Your task to perform on an android device: Open calendar and show me the fourth week of next month Image 0: 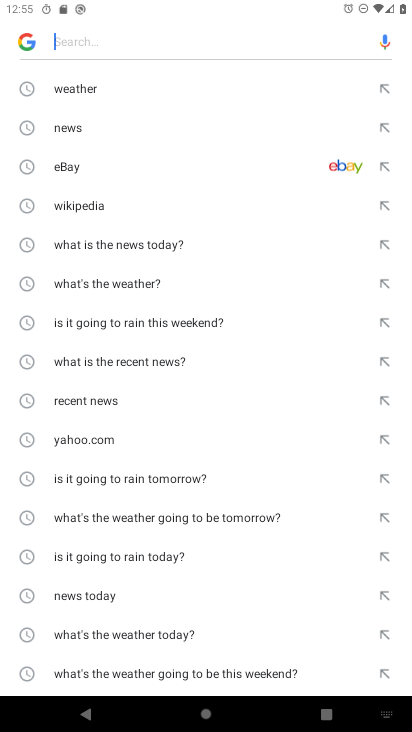
Step 0: press home button
Your task to perform on an android device: Open calendar and show me the fourth week of next month Image 1: 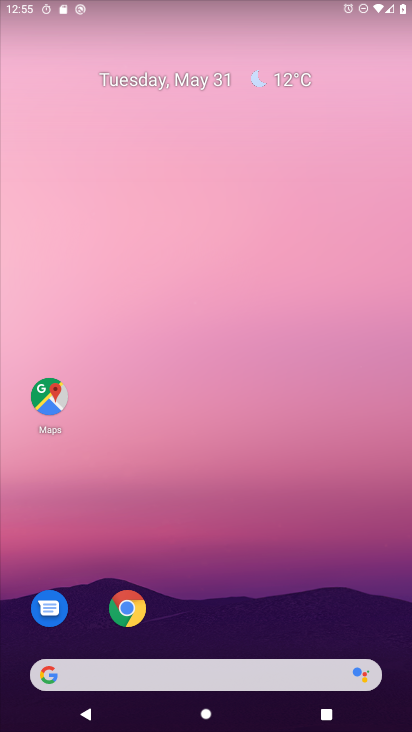
Step 1: drag from (300, 644) to (262, 9)
Your task to perform on an android device: Open calendar and show me the fourth week of next month Image 2: 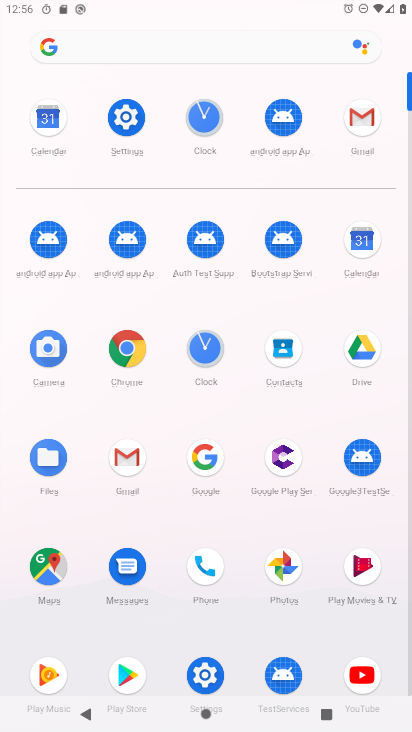
Step 2: click (44, 122)
Your task to perform on an android device: Open calendar and show me the fourth week of next month Image 3: 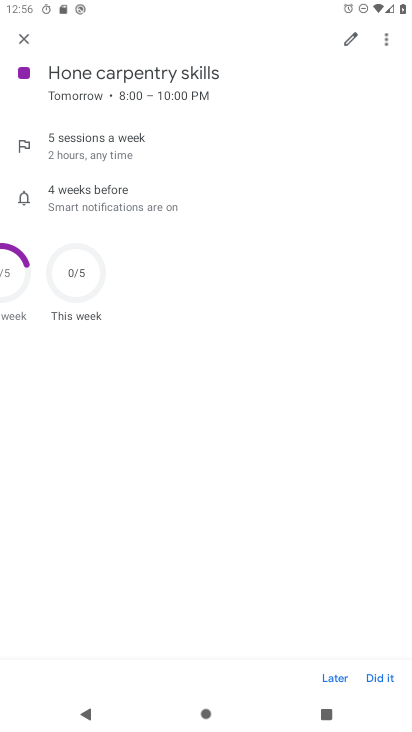
Step 3: click (23, 38)
Your task to perform on an android device: Open calendar and show me the fourth week of next month Image 4: 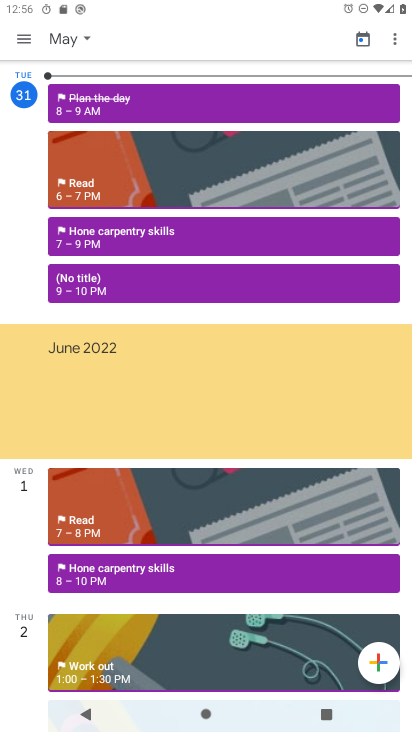
Step 4: click (85, 40)
Your task to perform on an android device: Open calendar and show me the fourth week of next month Image 5: 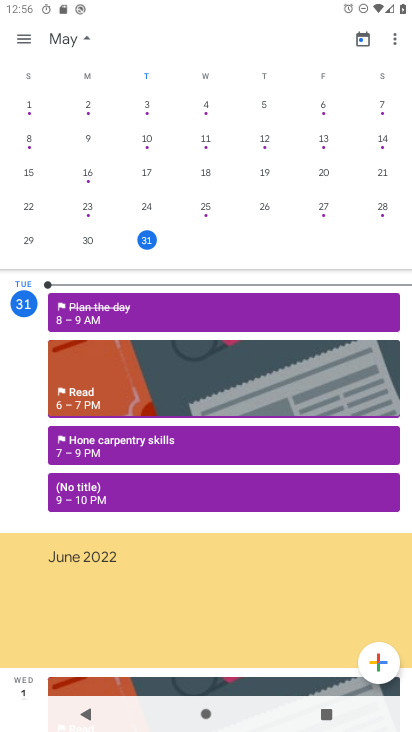
Step 5: drag from (292, 198) to (0, 80)
Your task to perform on an android device: Open calendar and show me the fourth week of next month Image 6: 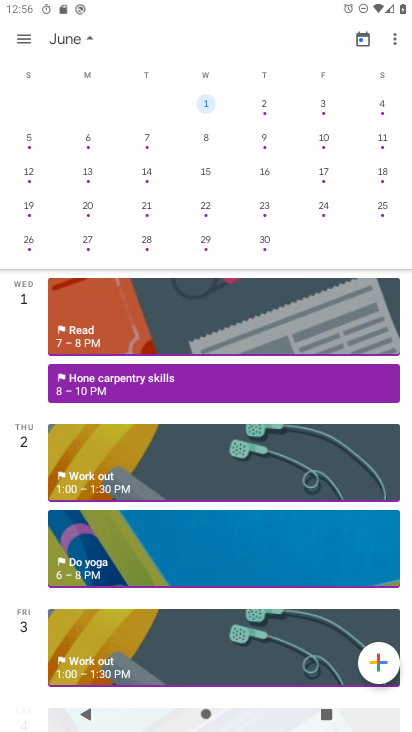
Step 6: click (26, 42)
Your task to perform on an android device: Open calendar and show me the fourth week of next month Image 7: 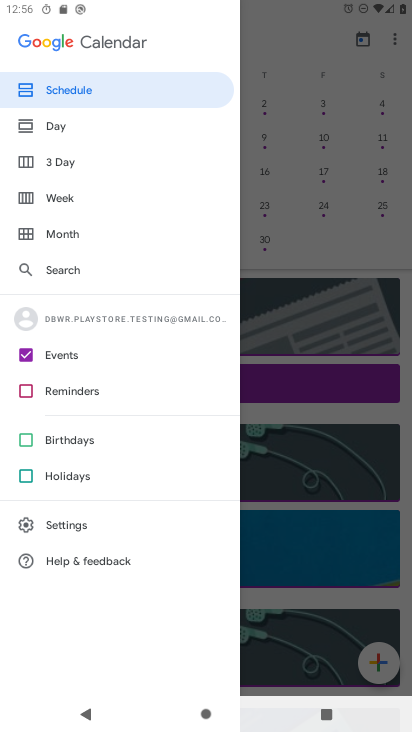
Step 7: click (51, 197)
Your task to perform on an android device: Open calendar and show me the fourth week of next month Image 8: 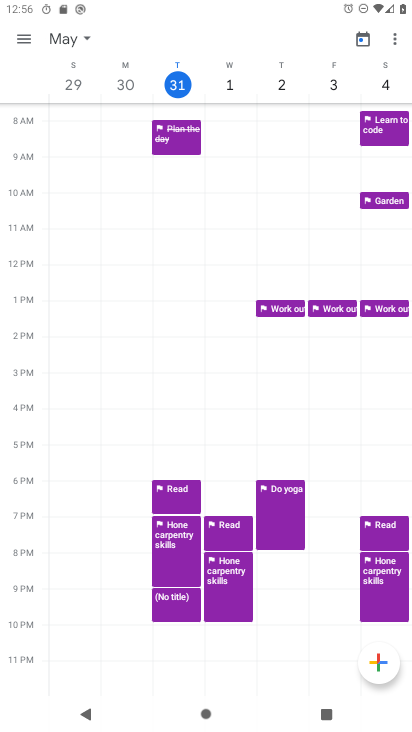
Step 8: task complete